Your task to perform on an android device: turn off sleep mode Image 0: 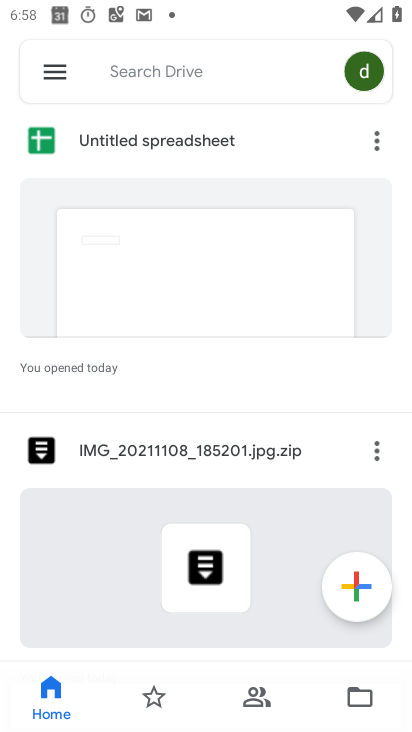
Step 0: press home button
Your task to perform on an android device: turn off sleep mode Image 1: 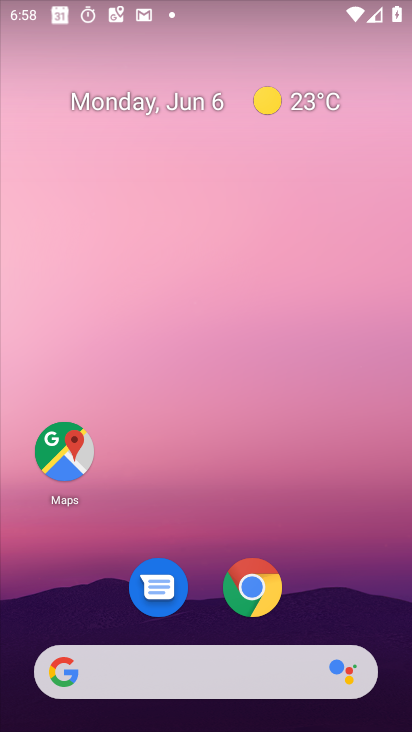
Step 1: drag from (386, 661) to (241, 48)
Your task to perform on an android device: turn off sleep mode Image 2: 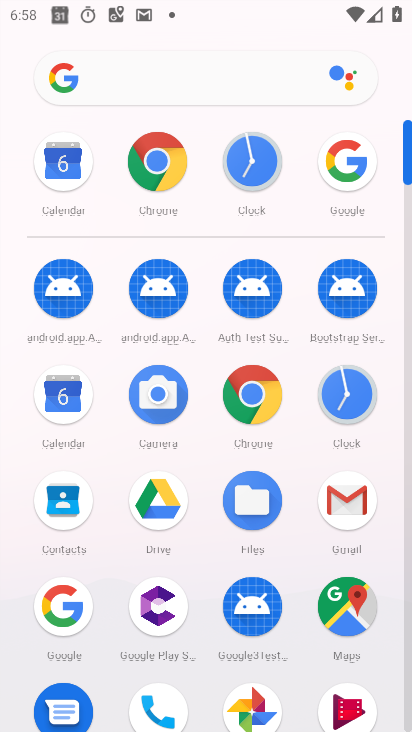
Step 2: drag from (202, 678) to (178, 188)
Your task to perform on an android device: turn off sleep mode Image 3: 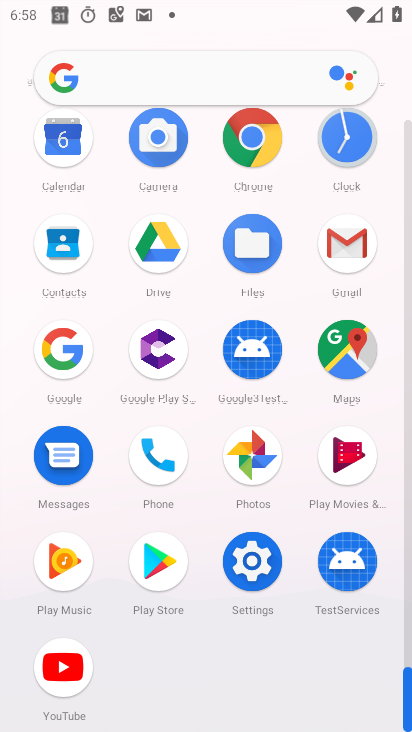
Step 3: click (257, 564)
Your task to perform on an android device: turn off sleep mode Image 4: 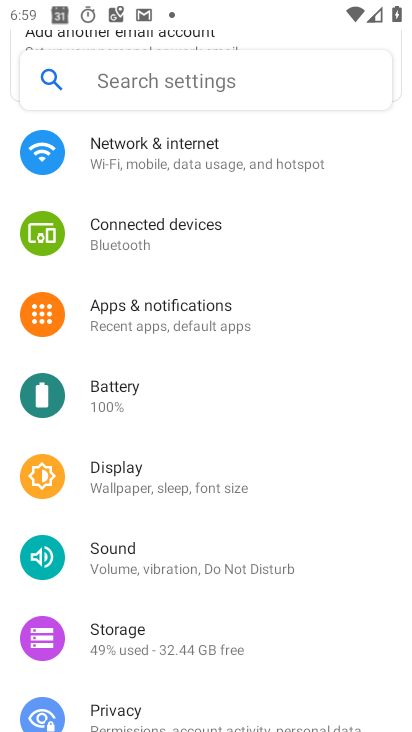
Step 4: task complete